Your task to perform on an android device: Open notification settings Image 0: 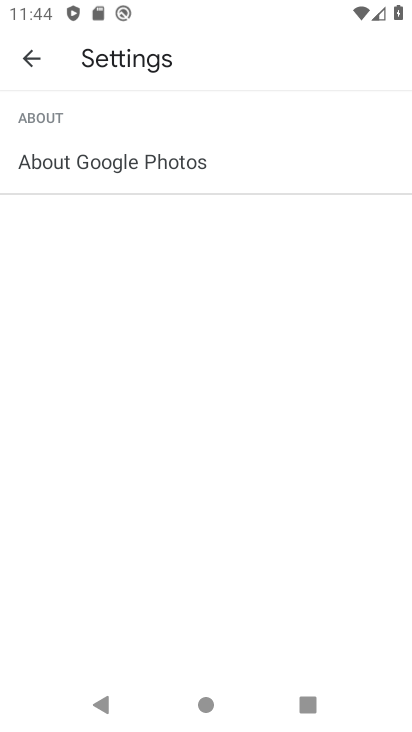
Step 0: press home button
Your task to perform on an android device: Open notification settings Image 1: 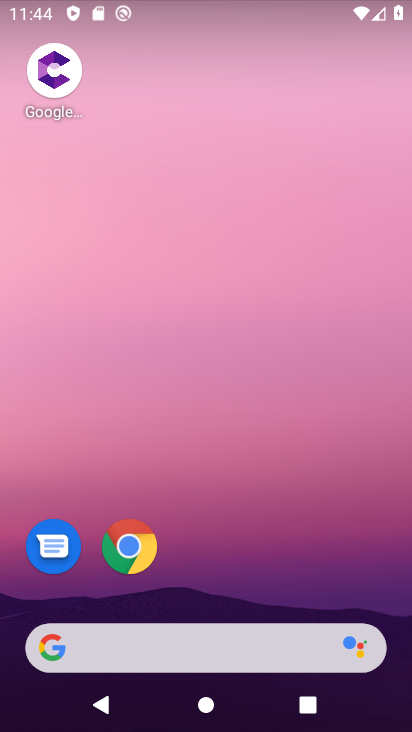
Step 1: drag from (241, 705) to (297, 29)
Your task to perform on an android device: Open notification settings Image 2: 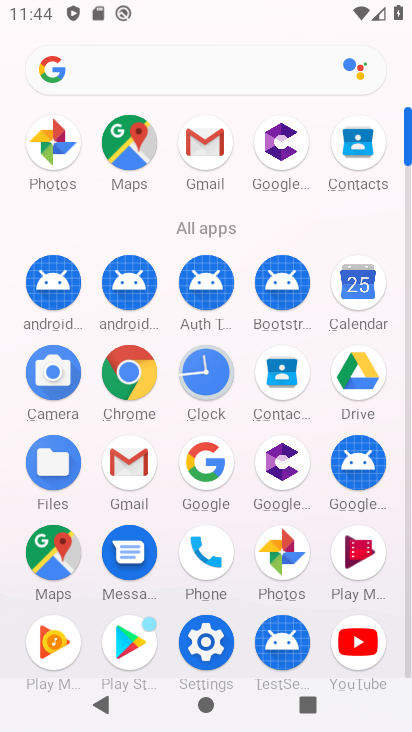
Step 2: click (224, 646)
Your task to perform on an android device: Open notification settings Image 3: 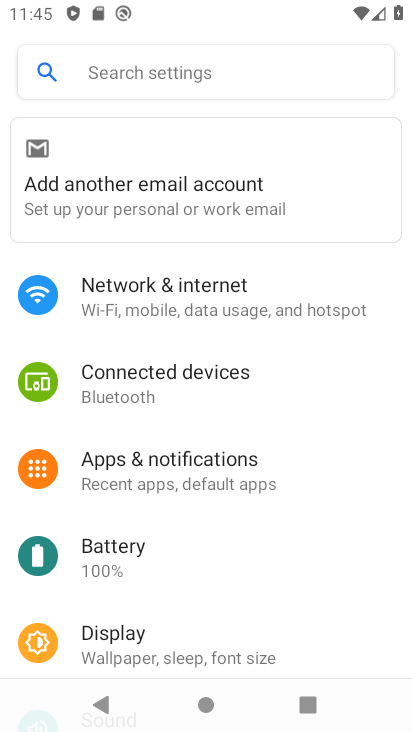
Step 3: click (261, 484)
Your task to perform on an android device: Open notification settings Image 4: 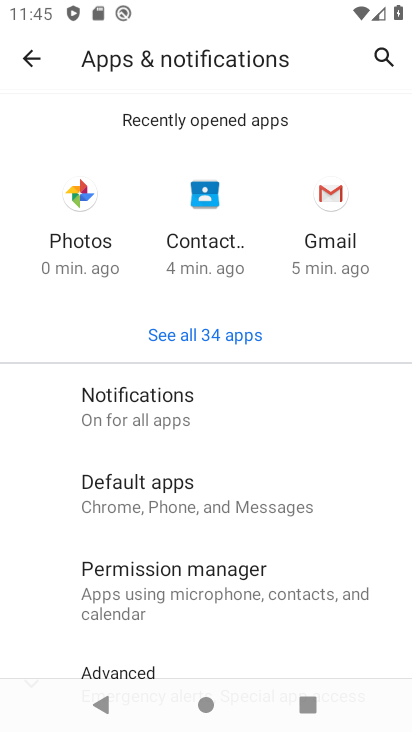
Step 4: task complete